Your task to perform on an android device: turn on notifications settings in the gmail app Image 0: 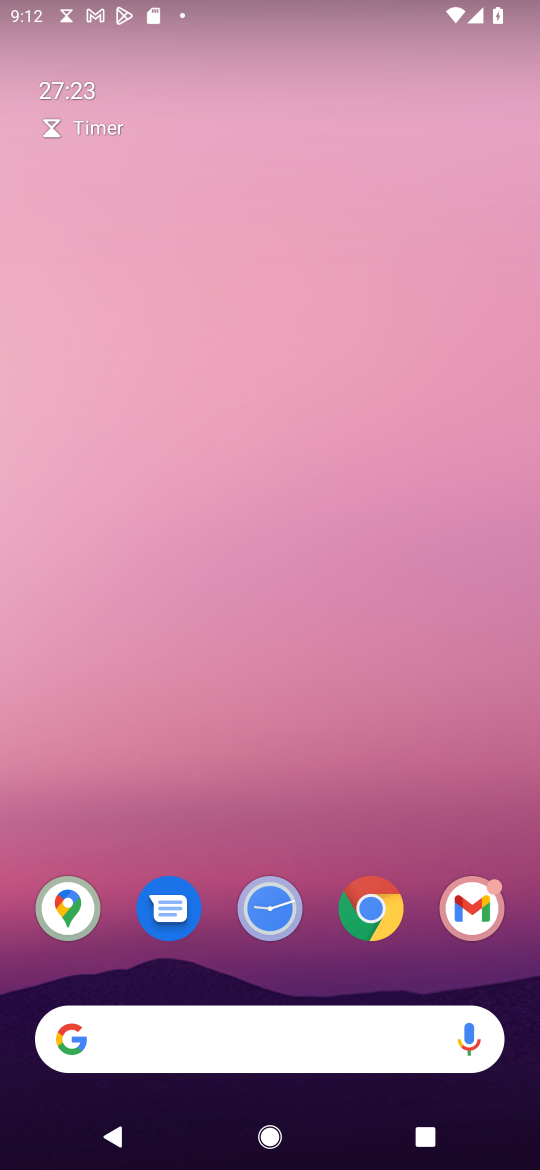
Step 0: click (487, 904)
Your task to perform on an android device: turn on notifications settings in the gmail app Image 1: 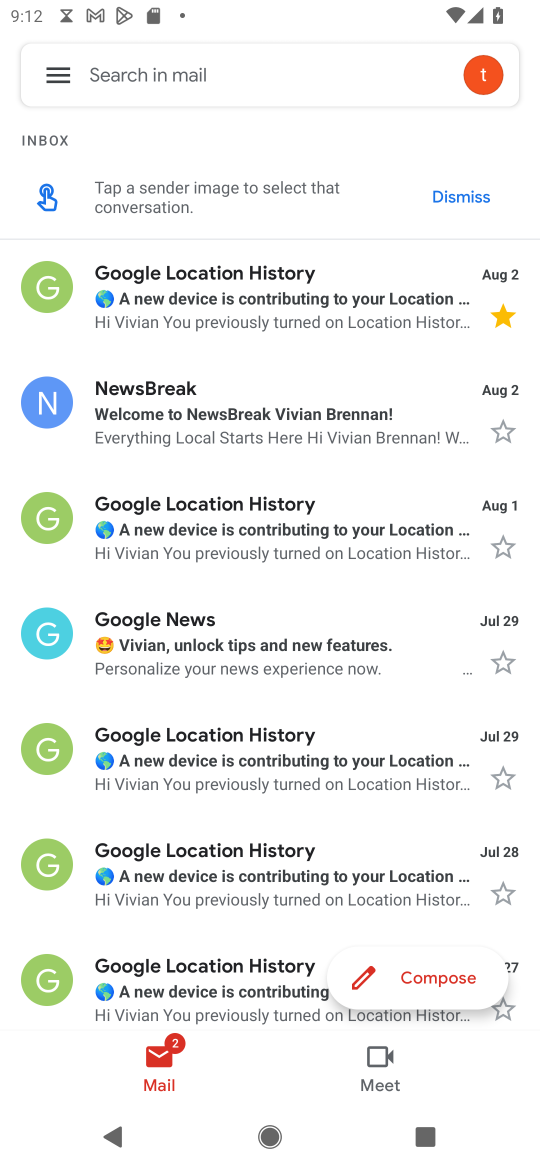
Step 1: click (53, 77)
Your task to perform on an android device: turn on notifications settings in the gmail app Image 2: 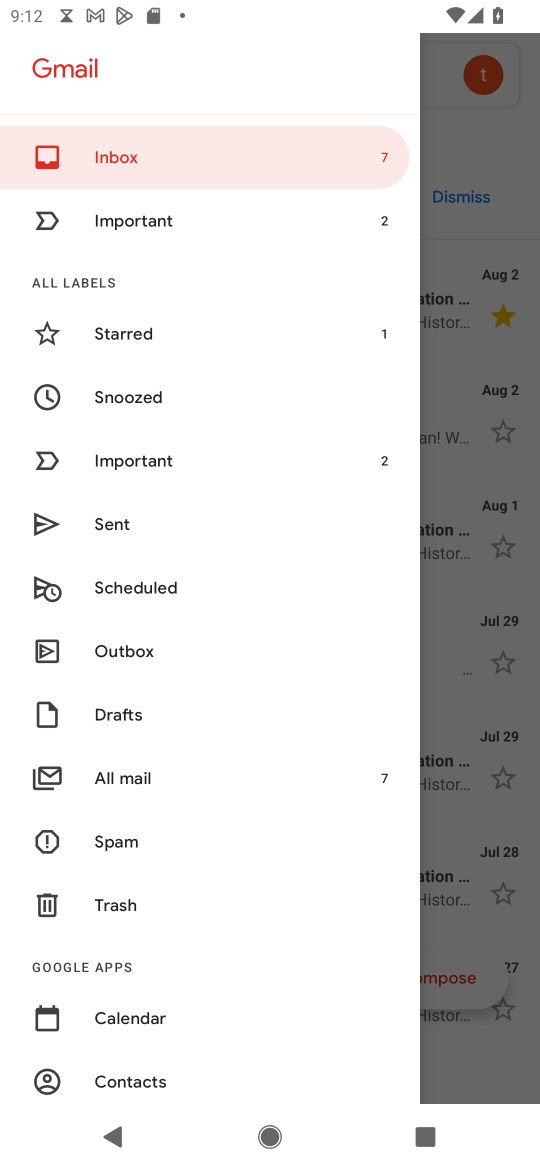
Step 2: drag from (189, 645) to (197, 522)
Your task to perform on an android device: turn on notifications settings in the gmail app Image 3: 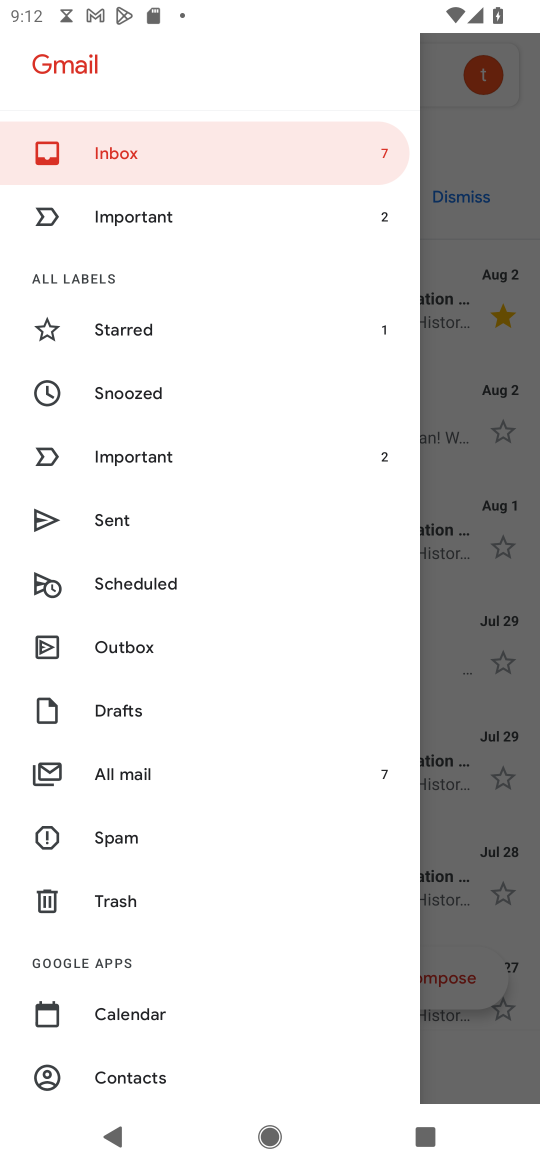
Step 3: drag from (243, 974) to (290, 518)
Your task to perform on an android device: turn on notifications settings in the gmail app Image 4: 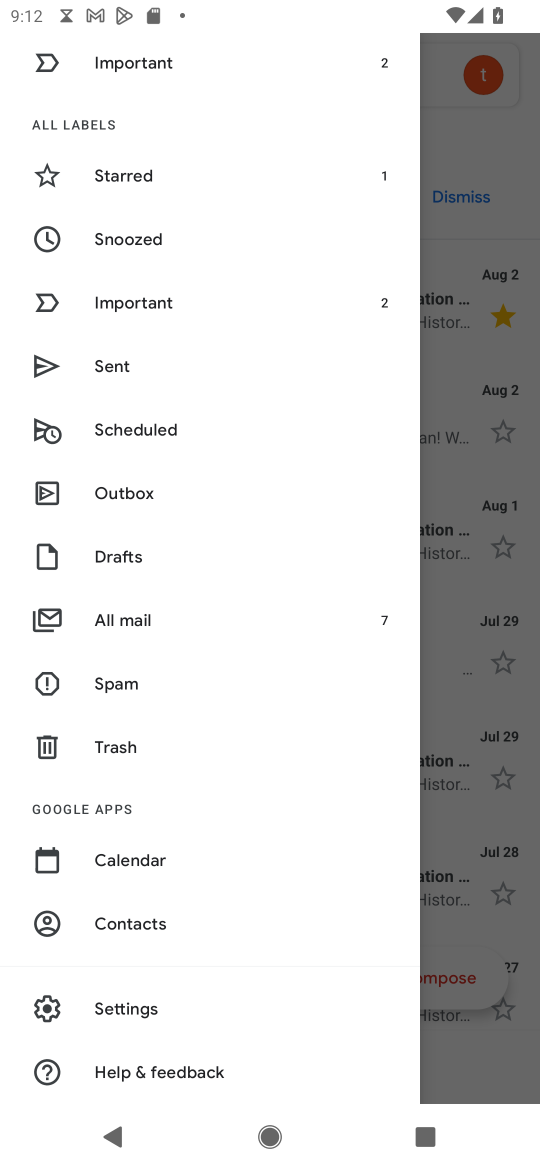
Step 4: click (156, 1012)
Your task to perform on an android device: turn on notifications settings in the gmail app Image 5: 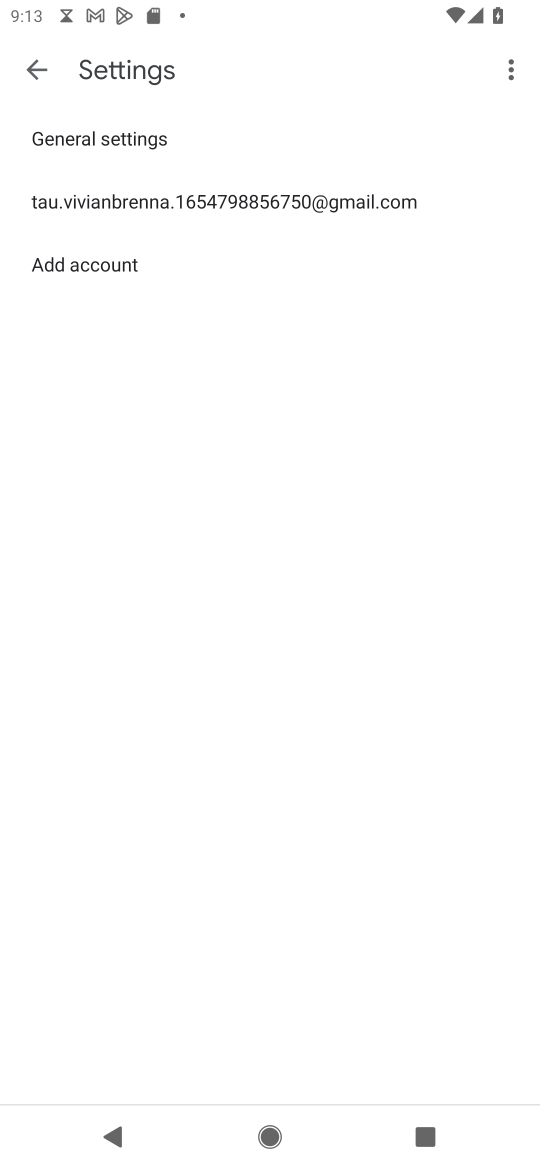
Step 5: click (290, 196)
Your task to perform on an android device: turn on notifications settings in the gmail app Image 6: 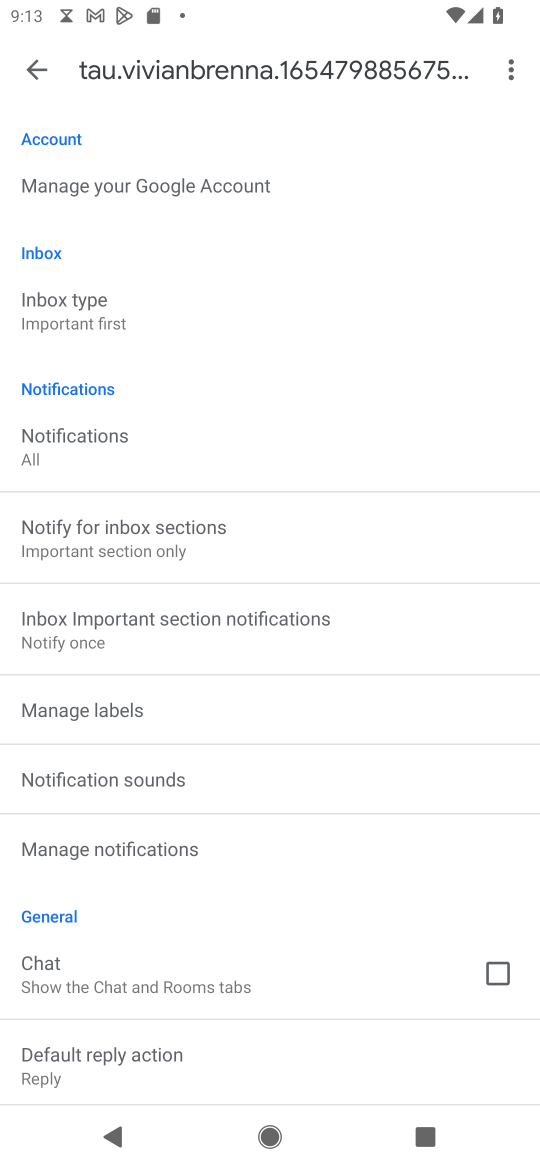
Step 6: drag from (280, 964) to (368, 255)
Your task to perform on an android device: turn on notifications settings in the gmail app Image 7: 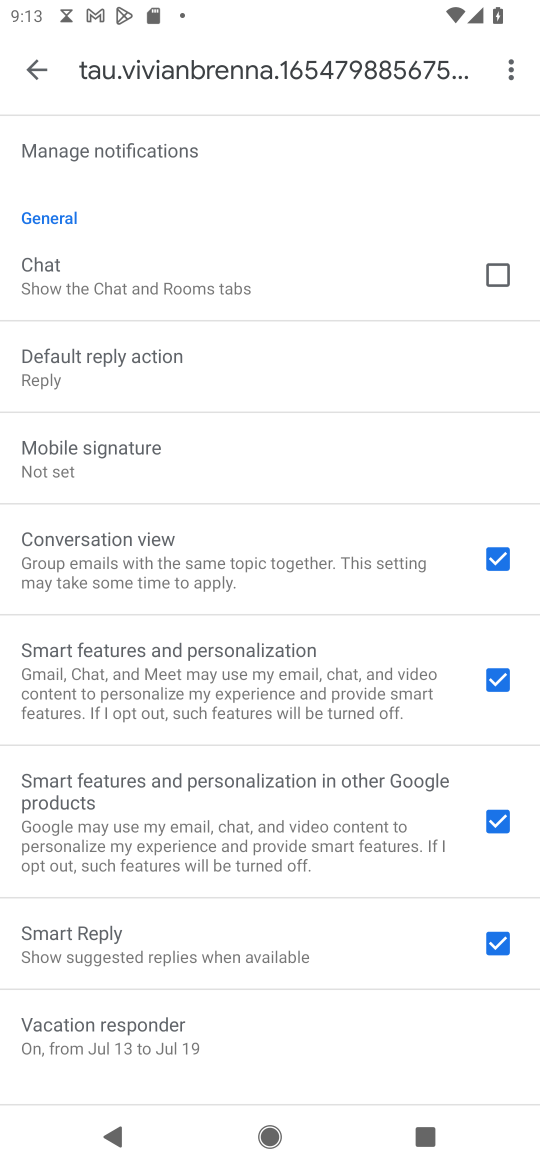
Step 7: click (97, 168)
Your task to perform on an android device: turn on notifications settings in the gmail app Image 8: 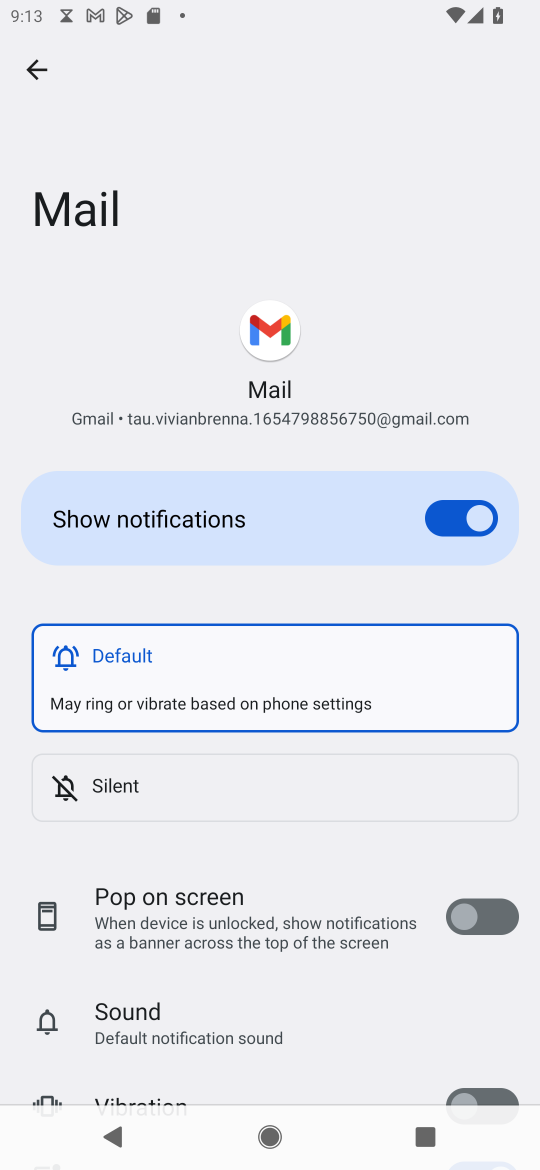
Step 8: task complete